Your task to perform on an android device: Add "logitech g pro" to the cart on target.com Image 0: 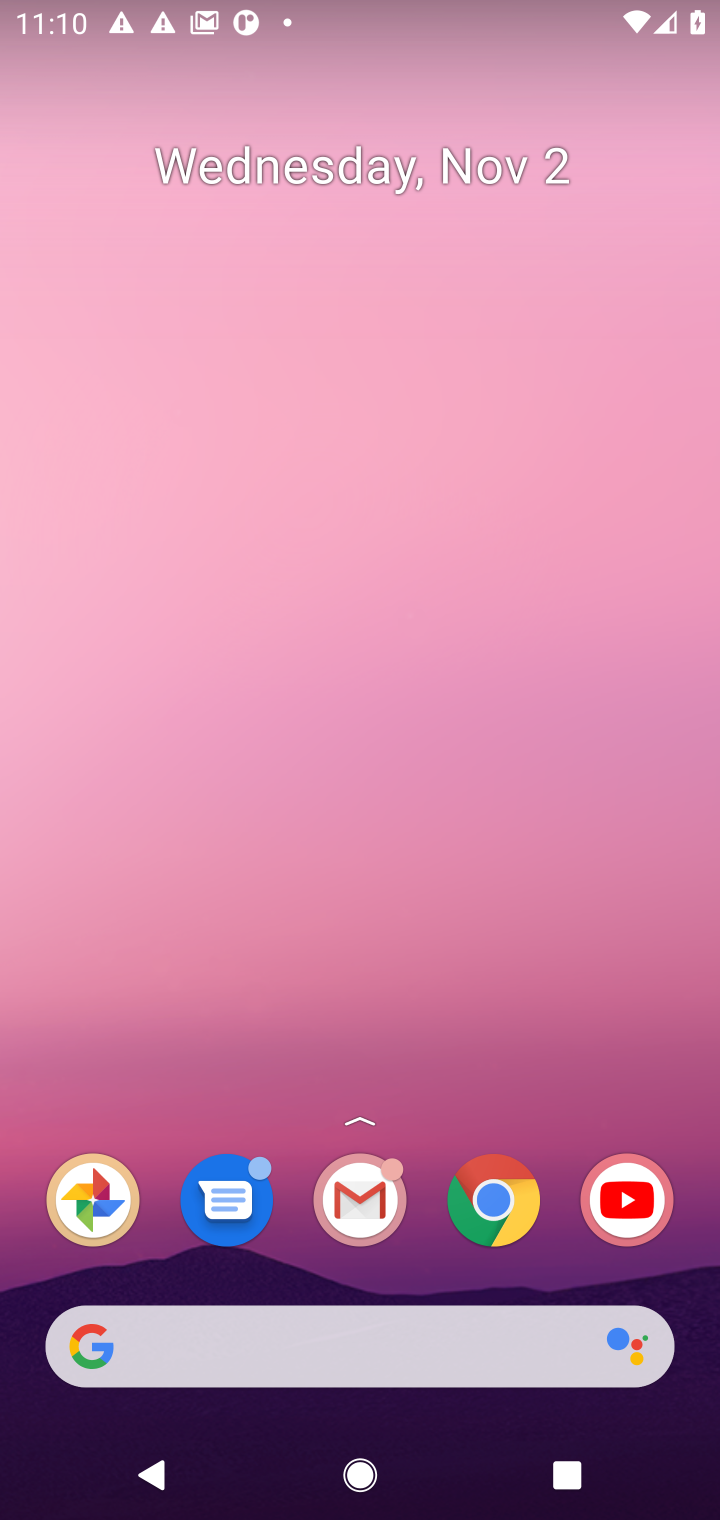
Step 0: click (523, 1183)
Your task to perform on an android device: Add "logitech g pro" to the cart on target.com Image 1: 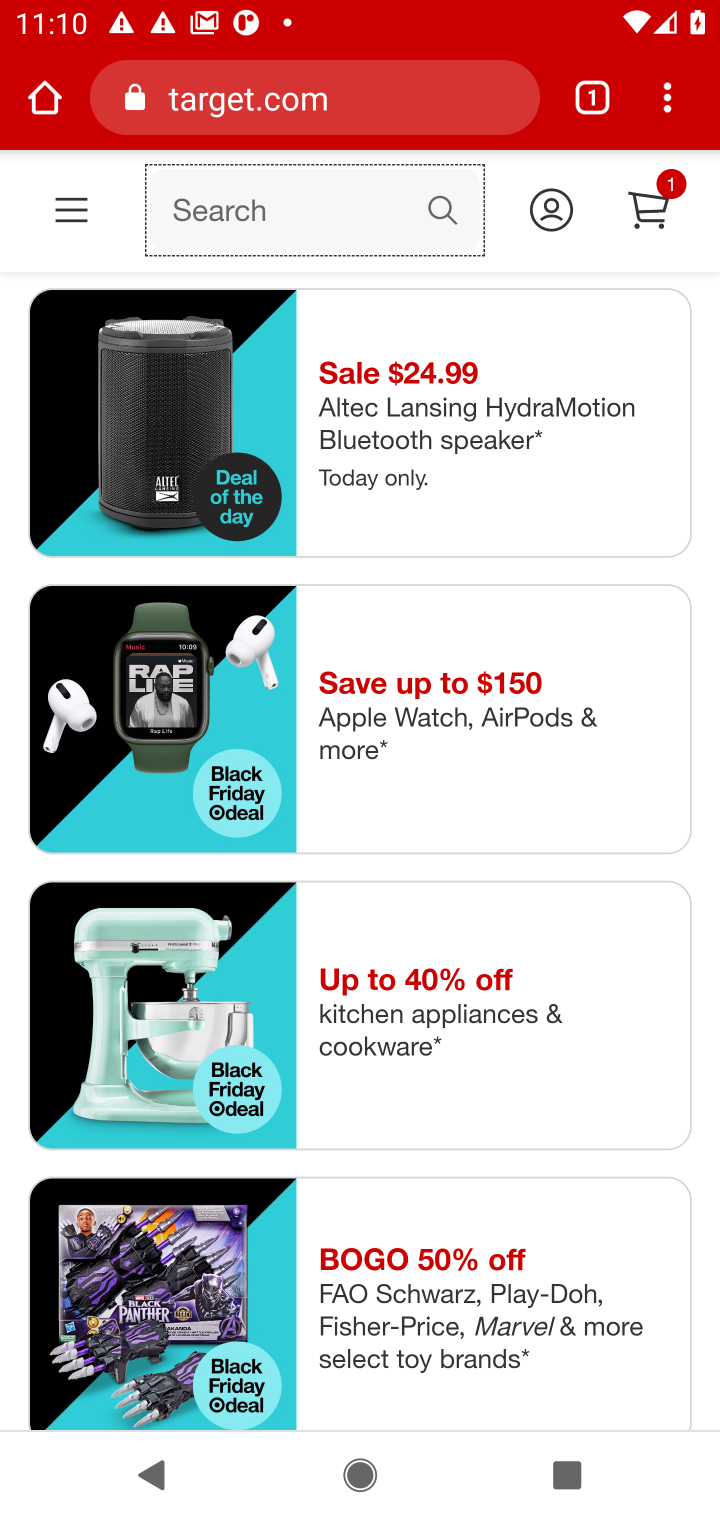
Step 1: drag from (373, 434) to (559, 1308)
Your task to perform on an android device: Add "logitech g pro" to the cart on target.com Image 2: 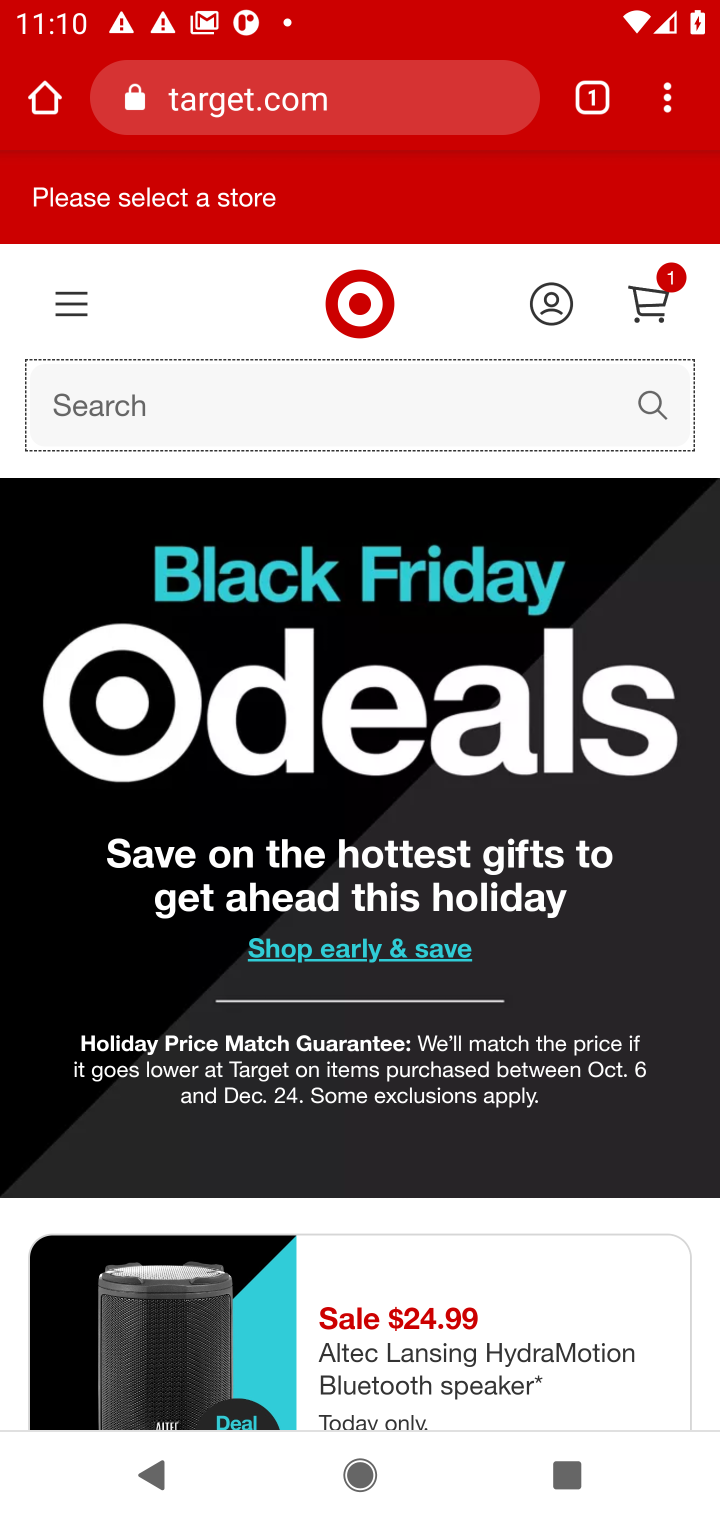
Step 2: click (647, 404)
Your task to perform on an android device: Add "logitech g pro" to the cart on target.com Image 3: 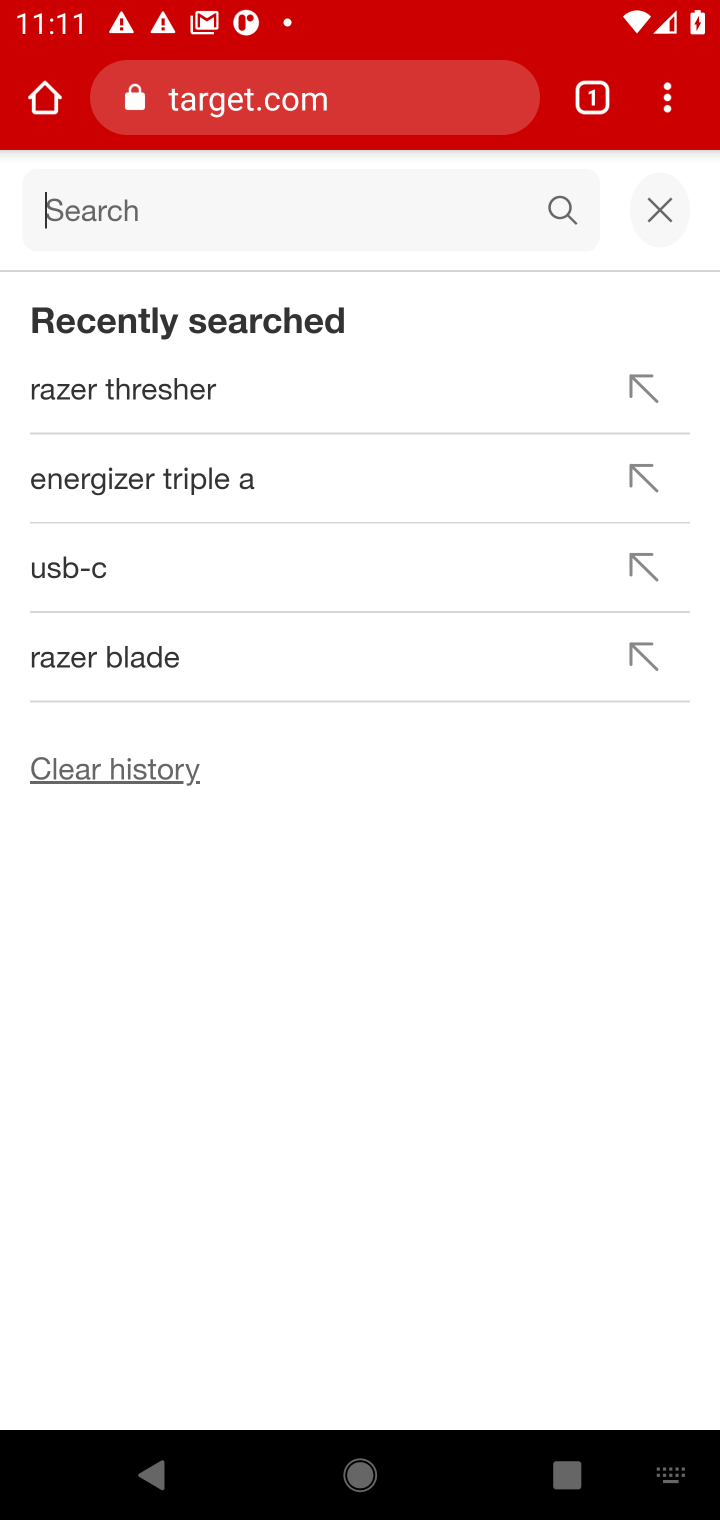
Step 3: press enter
Your task to perform on an android device: Add "logitech g pro" to the cart on target.com Image 4: 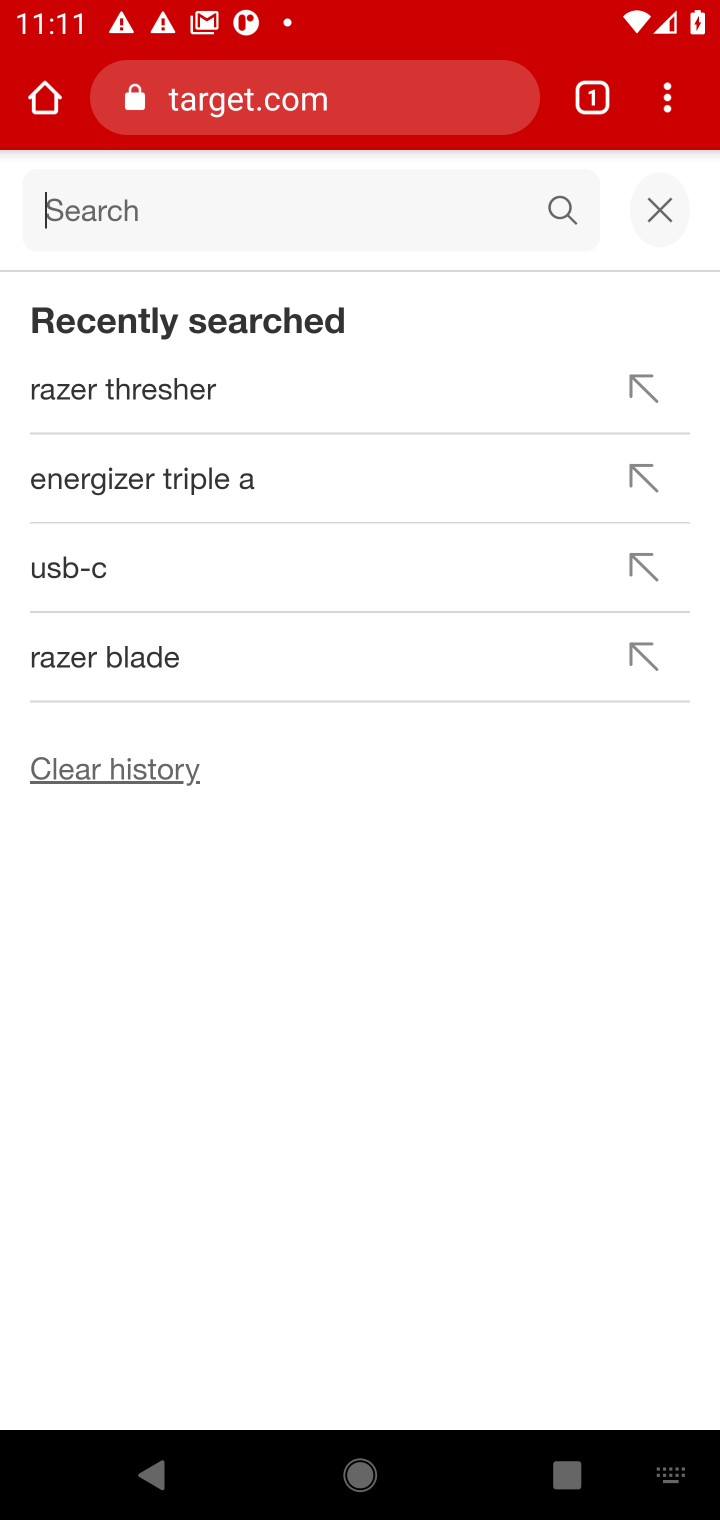
Step 4: type "logitech g pro"
Your task to perform on an android device: Add "logitech g pro" to the cart on target.com Image 5: 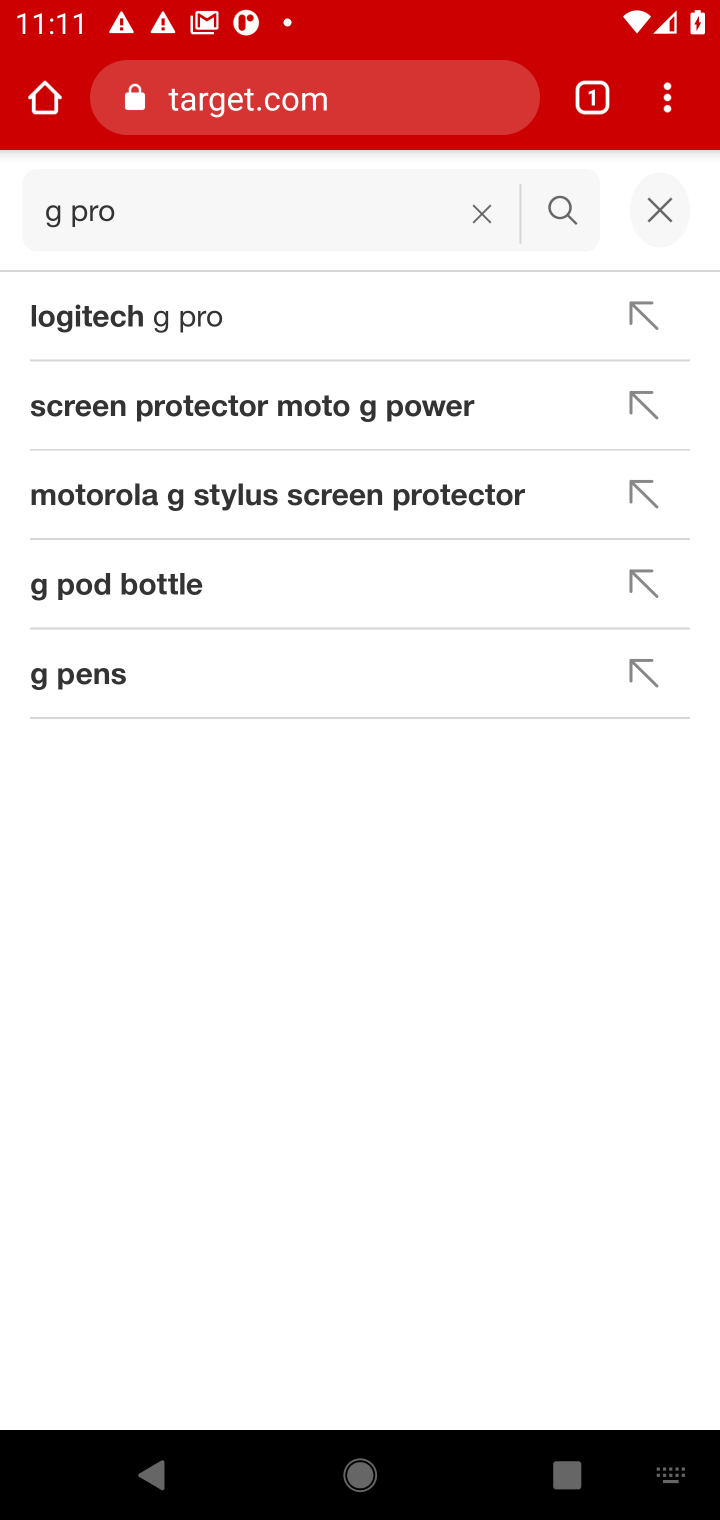
Step 5: click (166, 317)
Your task to perform on an android device: Add "logitech g pro" to the cart on target.com Image 6: 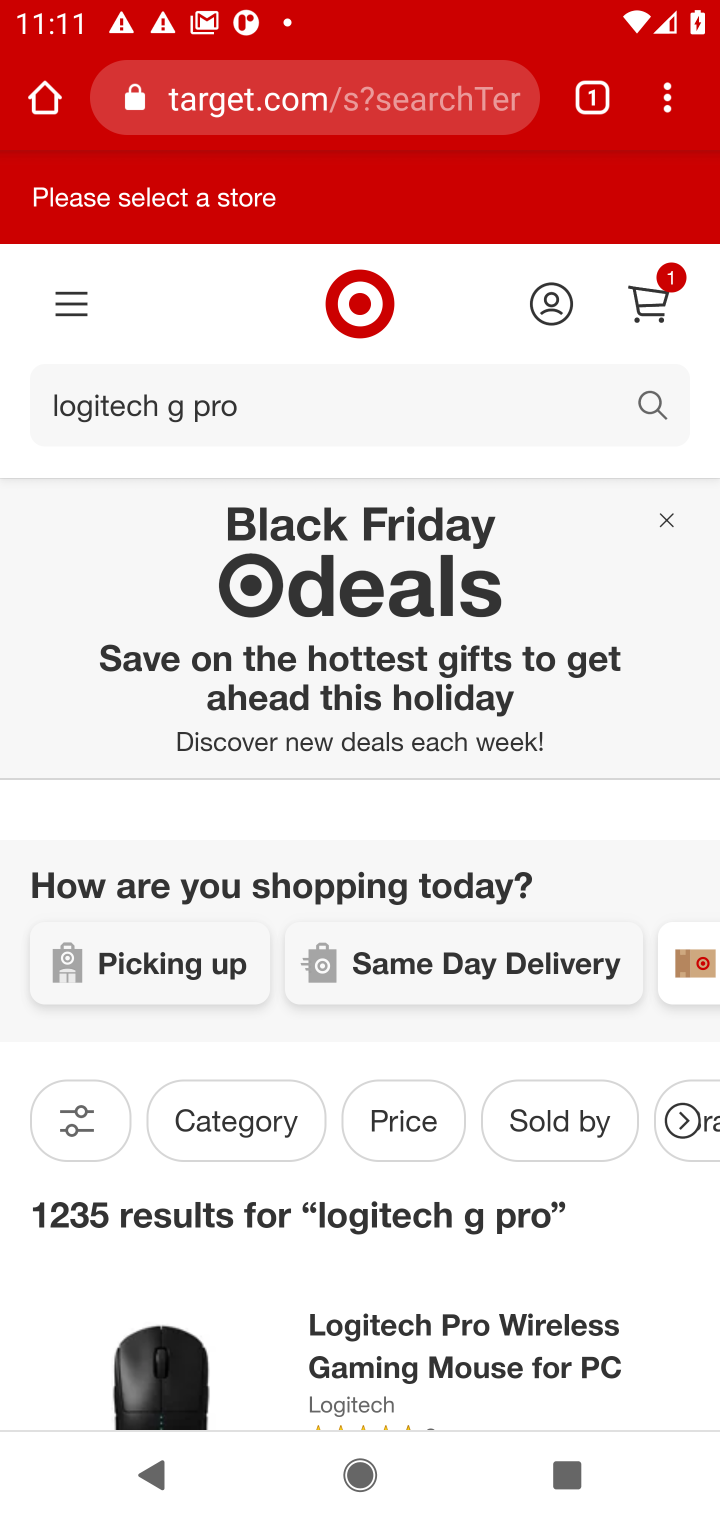
Step 6: drag from (505, 1326) to (562, 538)
Your task to perform on an android device: Add "logitech g pro" to the cart on target.com Image 7: 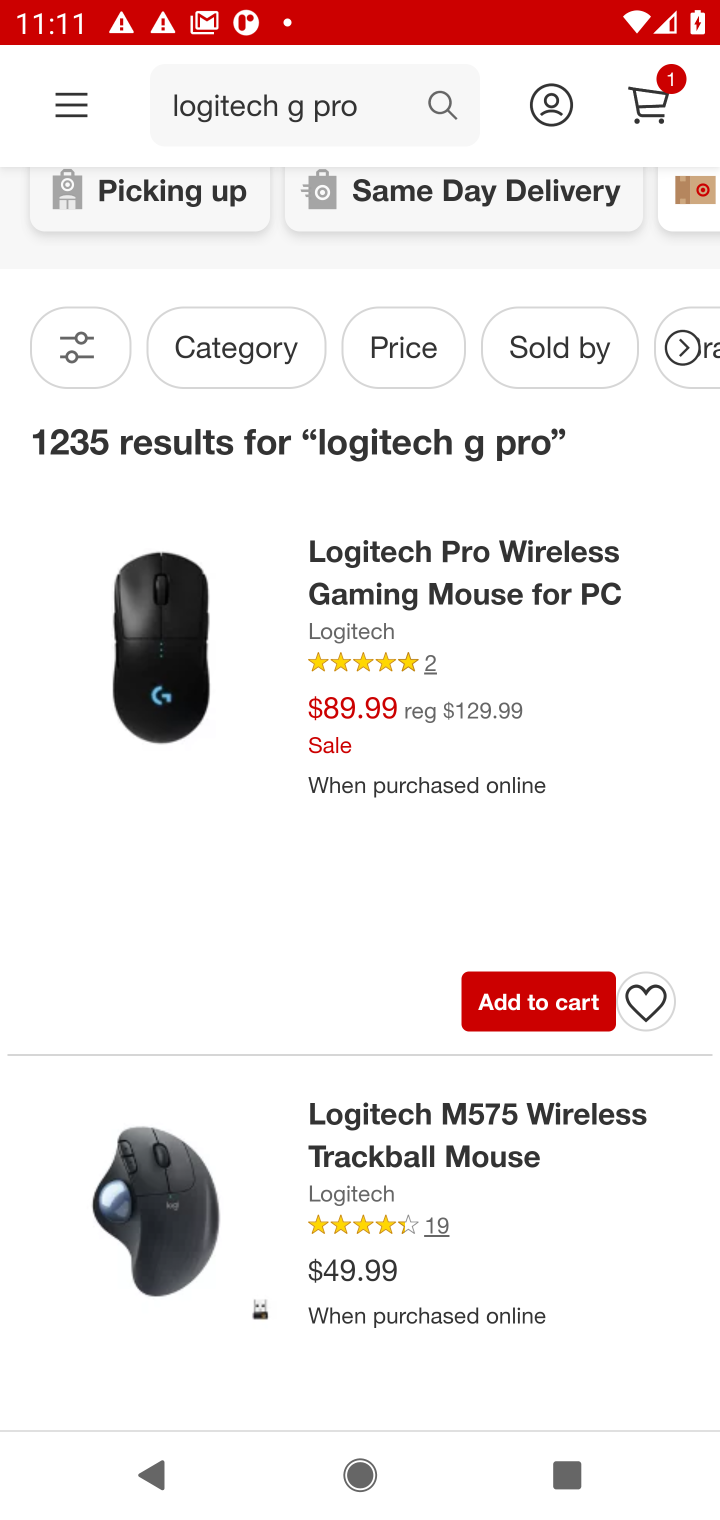
Step 7: click (197, 626)
Your task to perform on an android device: Add "logitech g pro" to the cart on target.com Image 8: 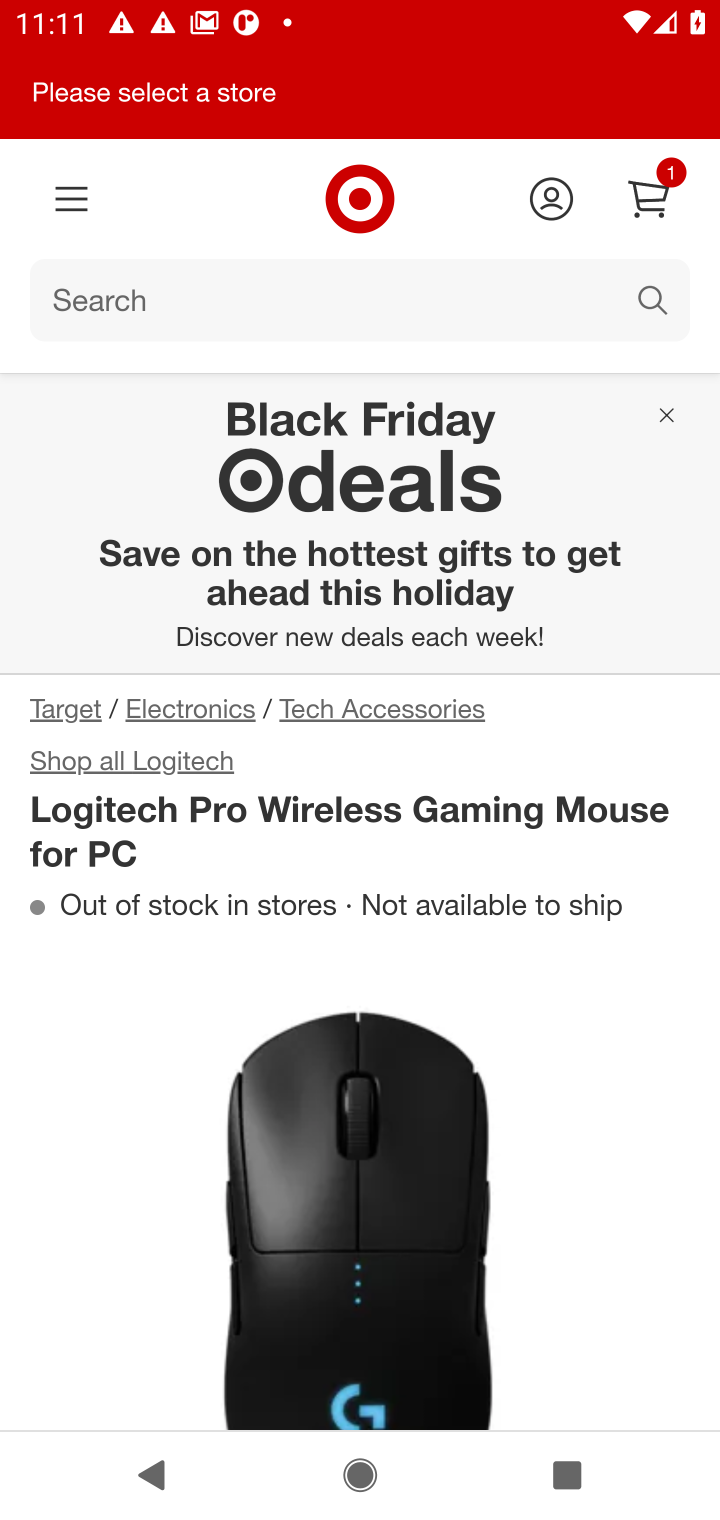
Step 8: drag from (565, 1029) to (533, 358)
Your task to perform on an android device: Add "logitech g pro" to the cart on target.com Image 9: 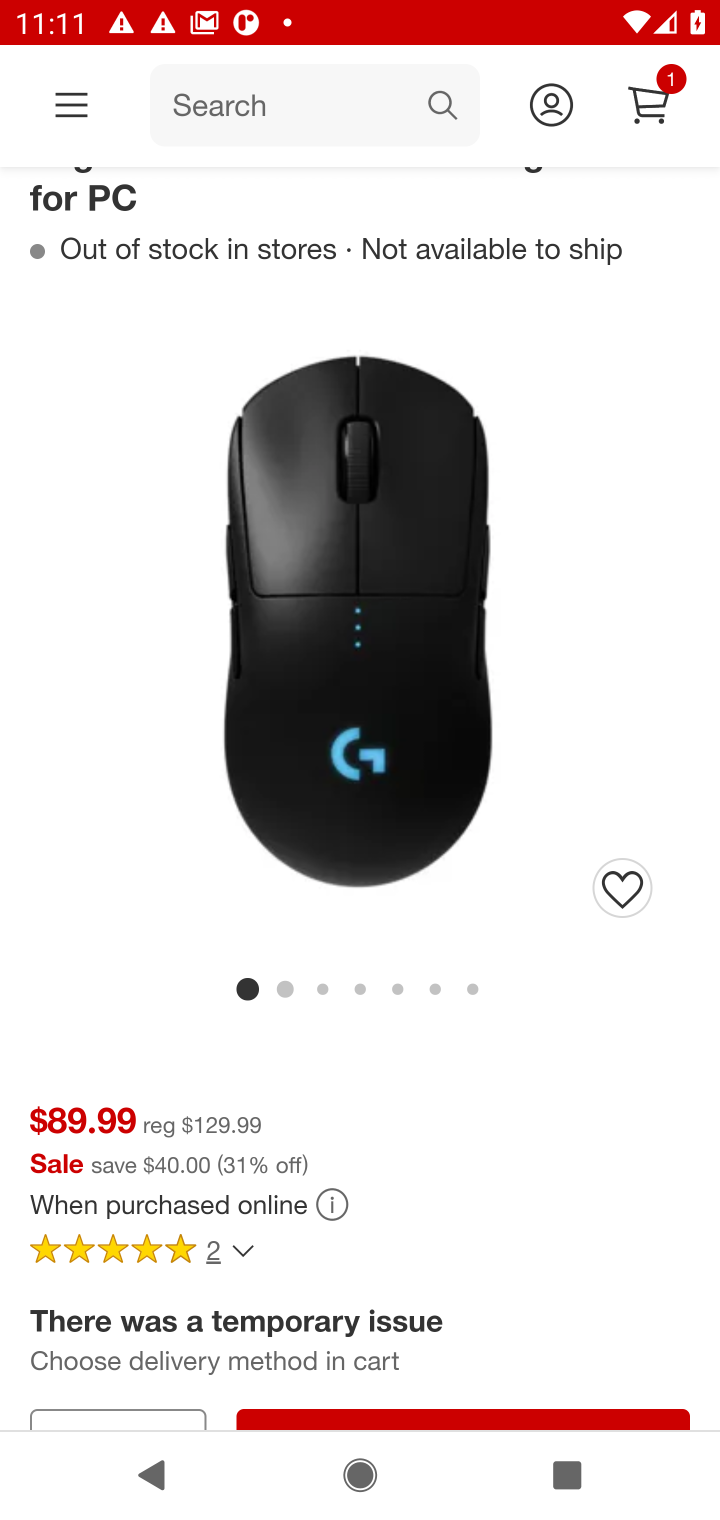
Step 9: drag from (535, 1091) to (513, 522)
Your task to perform on an android device: Add "logitech g pro" to the cart on target.com Image 10: 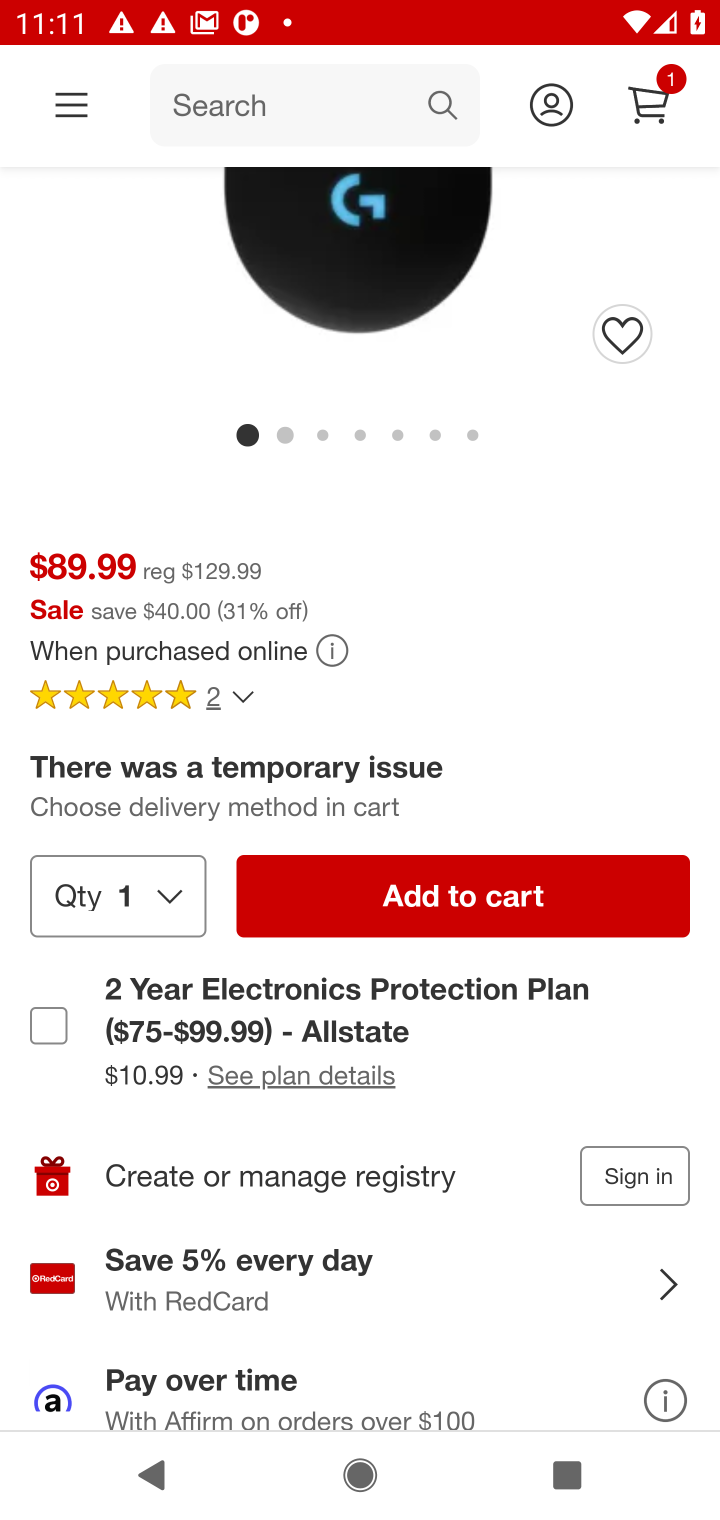
Step 10: click (533, 905)
Your task to perform on an android device: Add "logitech g pro" to the cart on target.com Image 11: 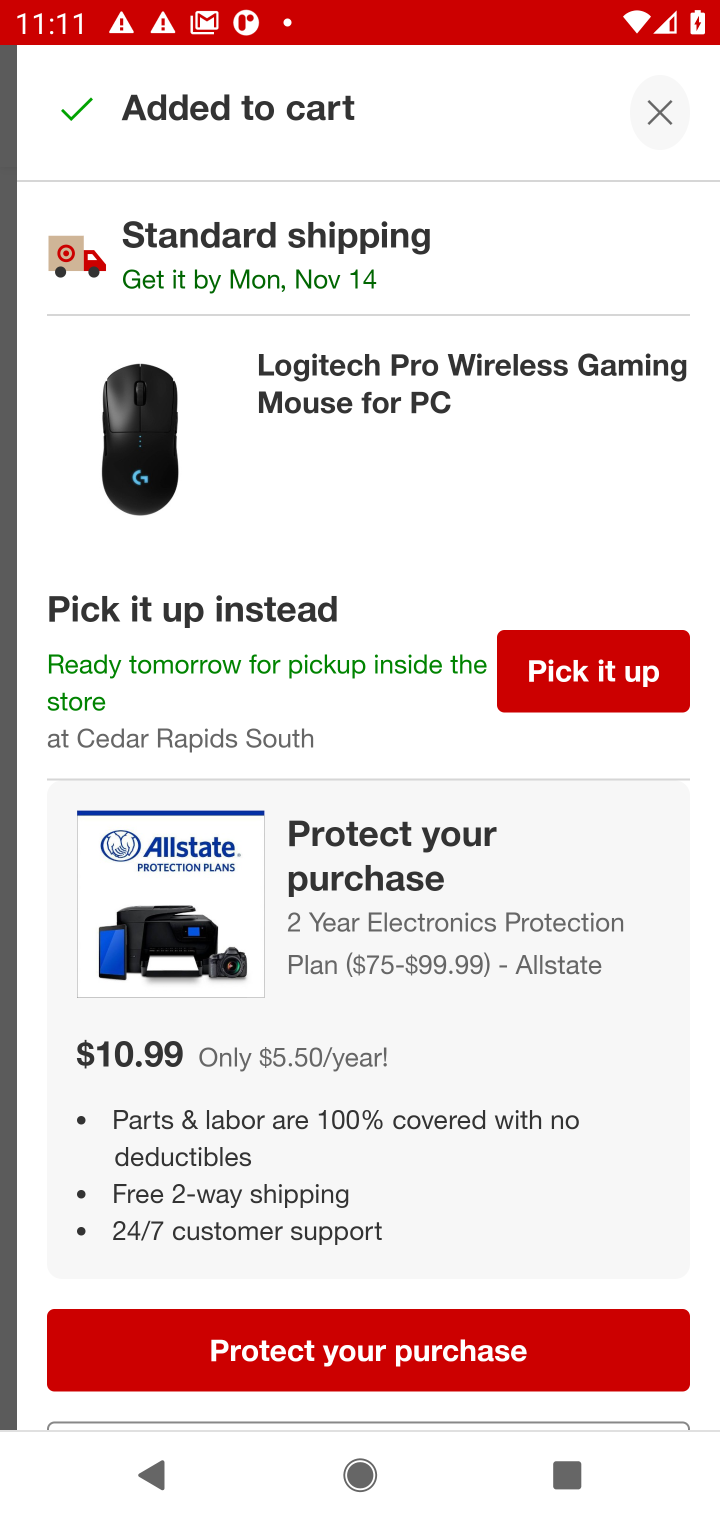
Step 11: task complete